Your task to perform on an android device: add a contact in the contacts app Image 0: 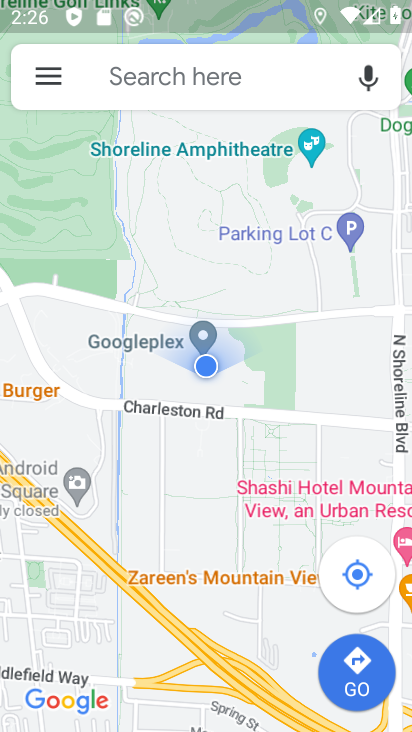
Step 0: press home button
Your task to perform on an android device: add a contact in the contacts app Image 1: 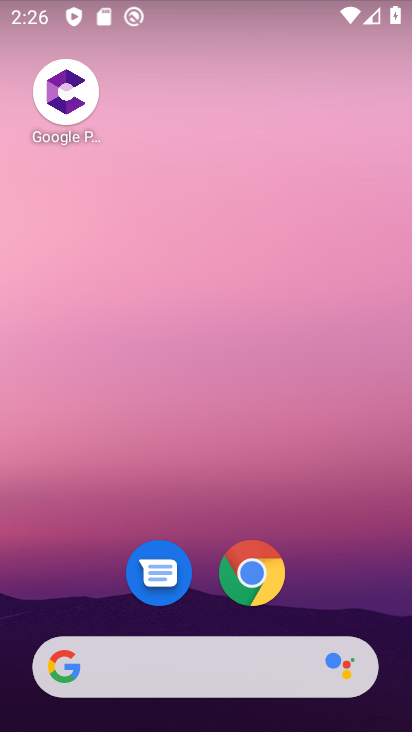
Step 1: drag from (255, 638) to (254, 212)
Your task to perform on an android device: add a contact in the contacts app Image 2: 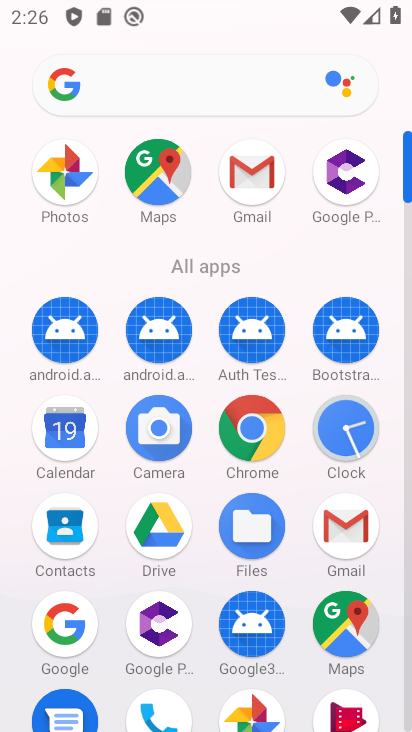
Step 2: click (65, 511)
Your task to perform on an android device: add a contact in the contacts app Image 3: 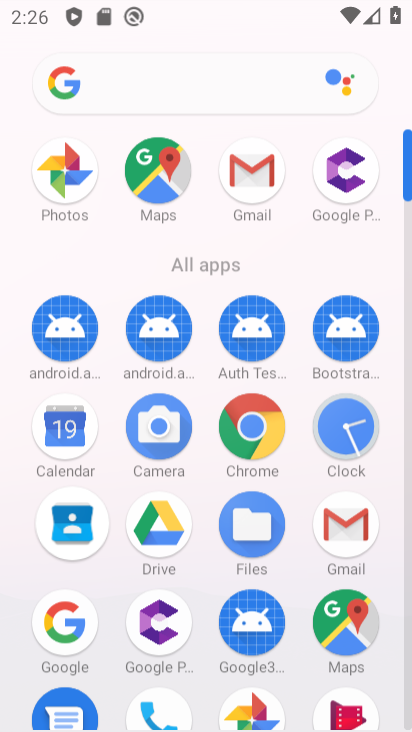
Step 3: click (65, 529)
Your task to perform on an android device: add a contact in the contacts app Image 4: 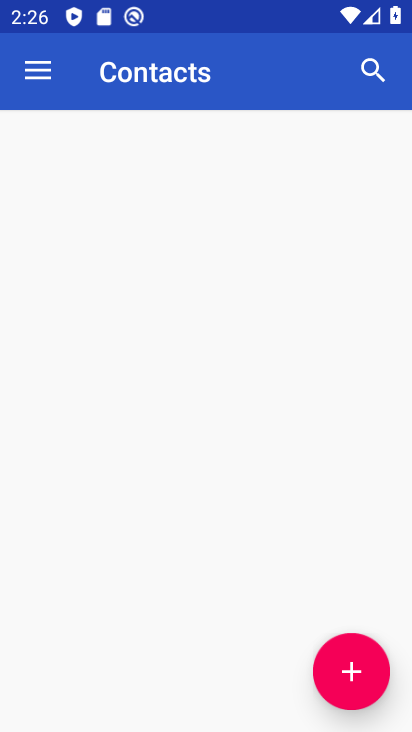
Step 4: click (65, 529)
Your task to perform on an android device: add a contact in the contacts app Image 5: 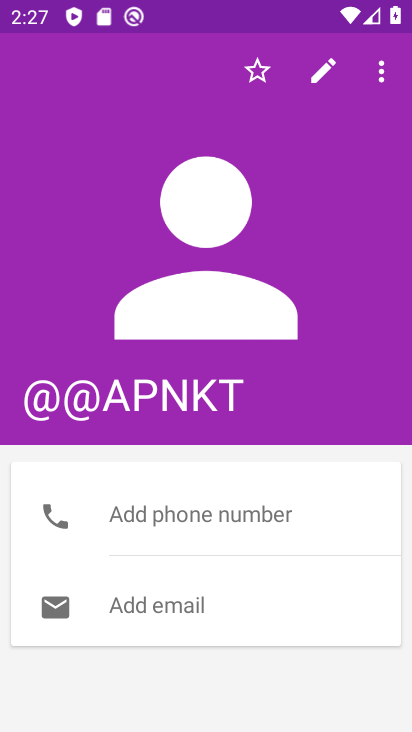
Step 5: task complete